Your task to perform on an android device: Open location settings Image 0: 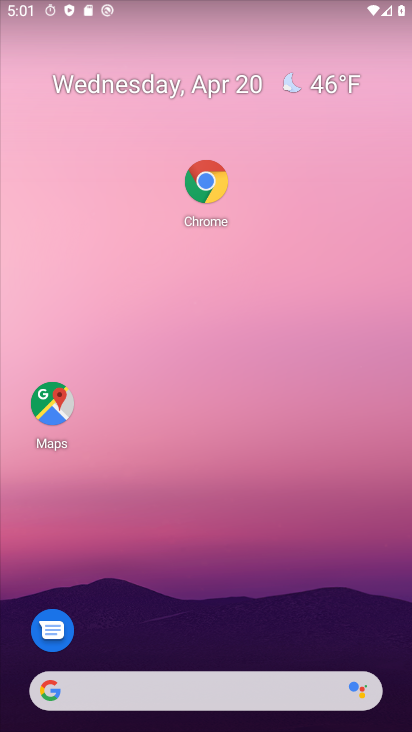
Step 0: drag from (215, 666) to (301, 258)
Your task to perform on an android device: Open location settings Image 1: 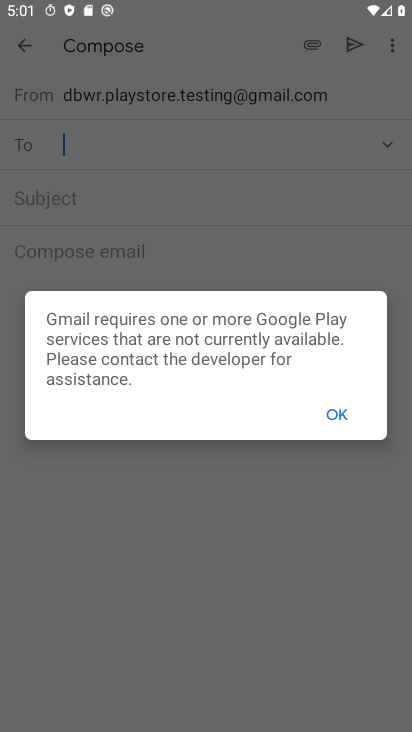
Step 1: press home button
Your task to perform on an android device: Open location settings Image 2: 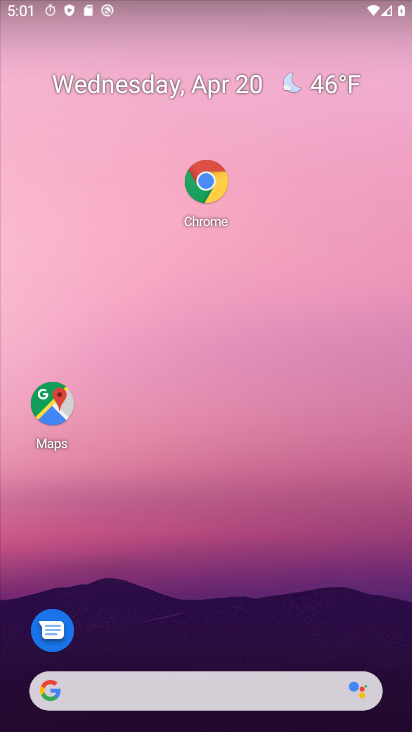
Step 2: drag from (219, 595) to (342, 197)
Your task to perform on an android device: Open location settings Image 3: 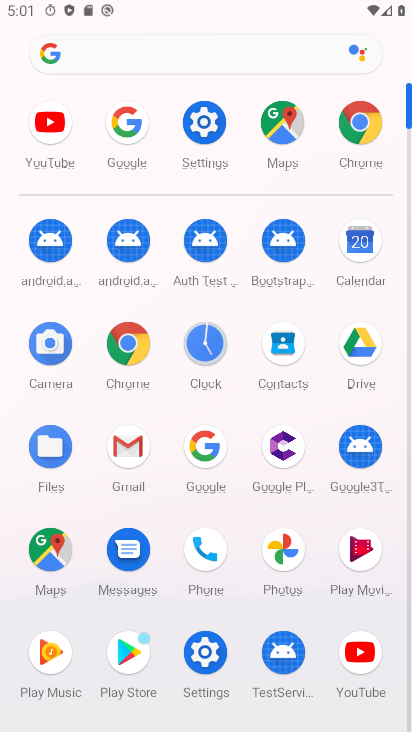
Step 3: click (202, 114)
Your task to perform on an android device: Open location settings Image 4: 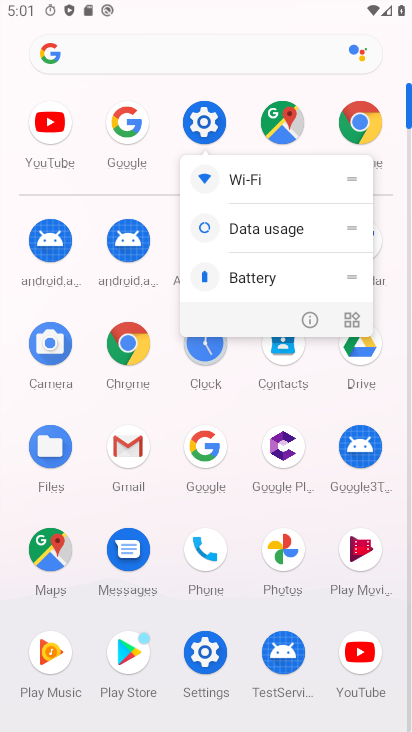
Step 4: click (202, 114)
Your task to perform on an android device: Open location settings Image 5: 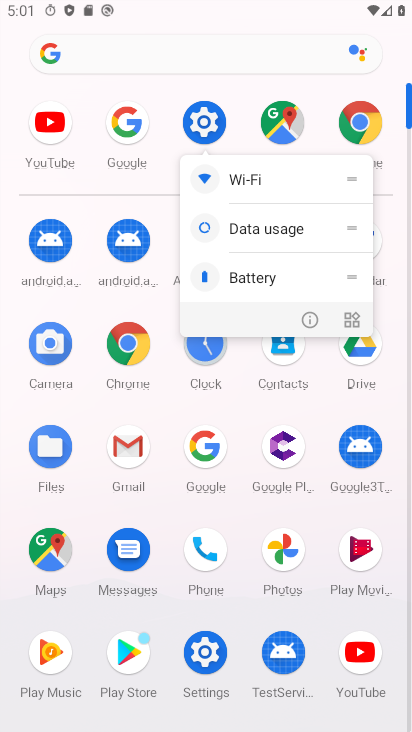
Step 5: click (212, 117)
Your task to perform on an android device: Open location settings Image 6: 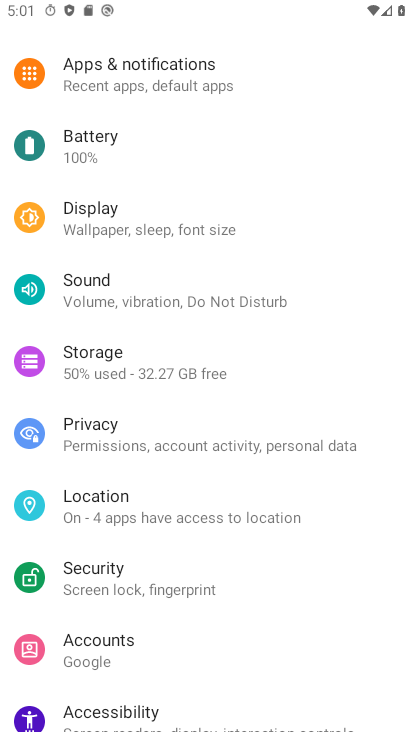
Step 6: click (94, 499)
Your task to perform on an android device: Open location settings Image 7: 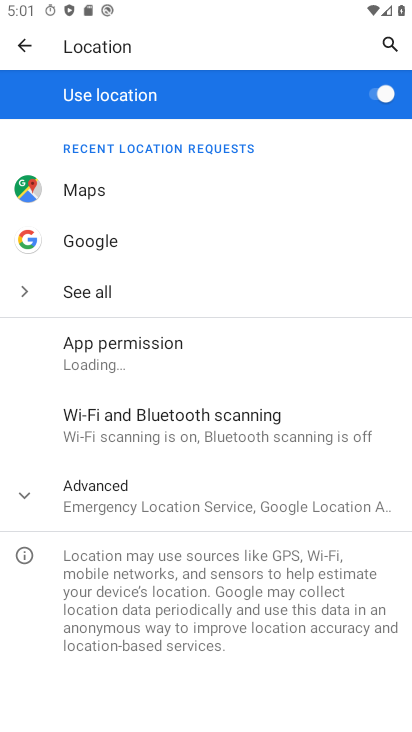
Step 7: click (100, 503)
Your task to perform on an android device: Open location settings Image 8: 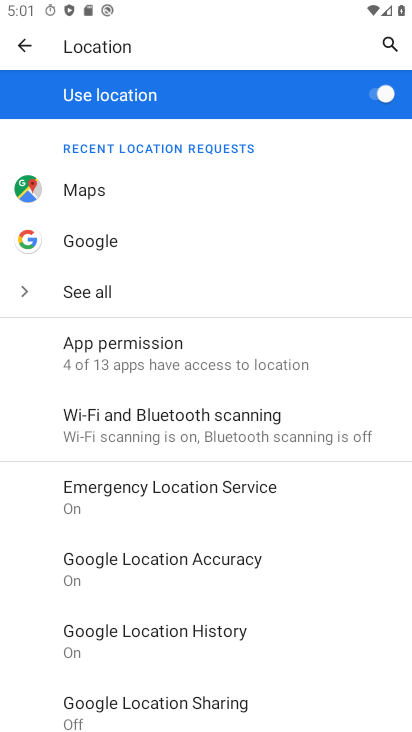
Step 8: task complete